Your task to perform on an android device: turn on airplane mode Image 0: 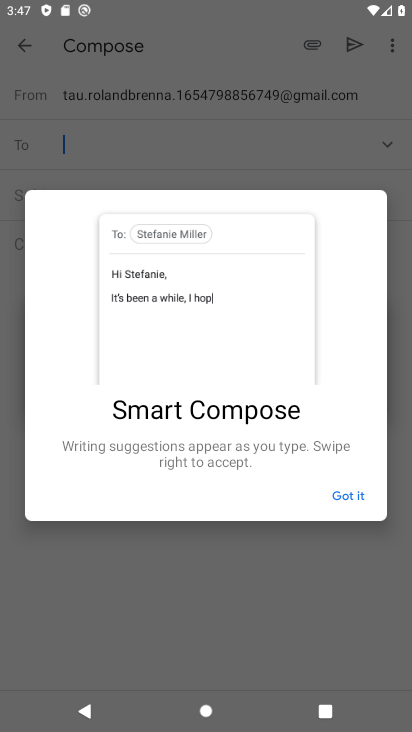
Step 0: press home button
Your task to perform on an android device: turn on airplane mode Image 1: 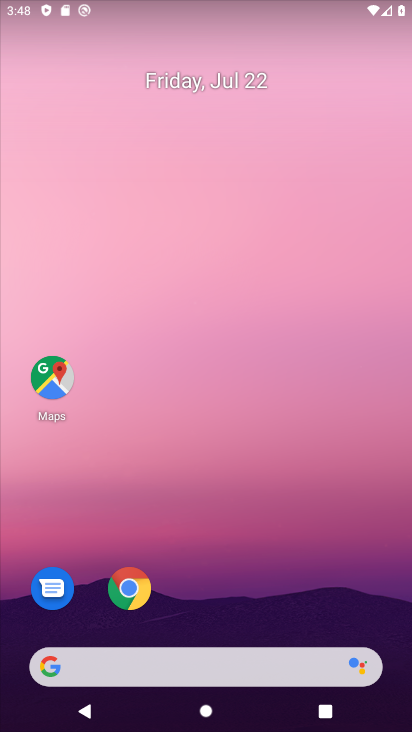
Step 1: drag from (245, 458) to (234, 212)
Your task to perform on an android device: turn on airplane mode Image 2: 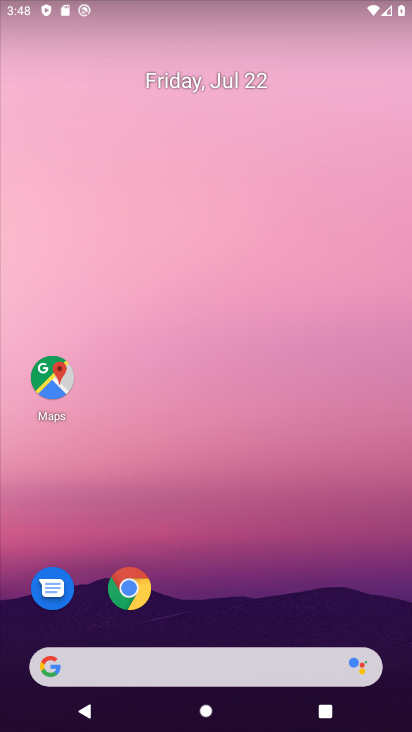
Step 2: drag from (291, 593) to (240, 93)
Your task to perform on an android device: turn on airplane mode Image 3: 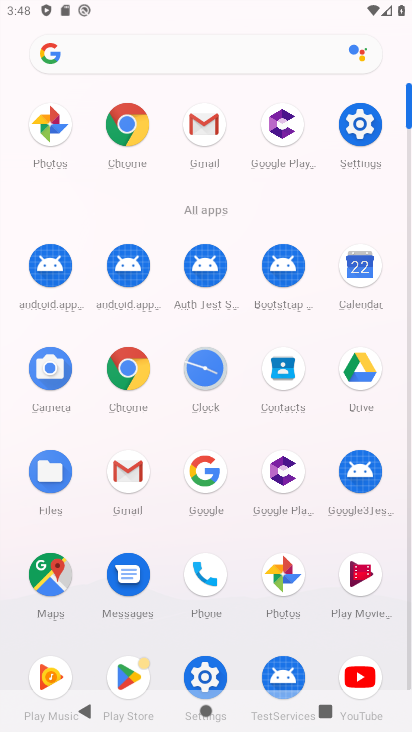
Step 3: click (358, 144)
Your task to perform on an android device: turn on airplane mode Image 4: 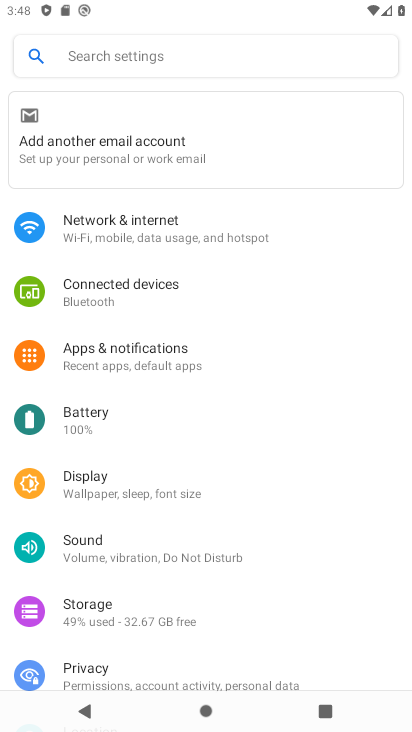
Step 4: click (195, 242)
Your task to perform on an android device: turn on airplane mode Image 5: 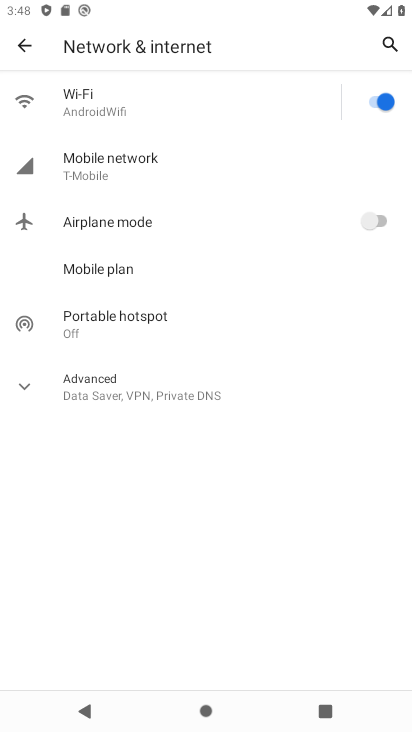
Step 5: click (359, 235)
Your task to perform on an android device: turn on airplane mode Image 6: 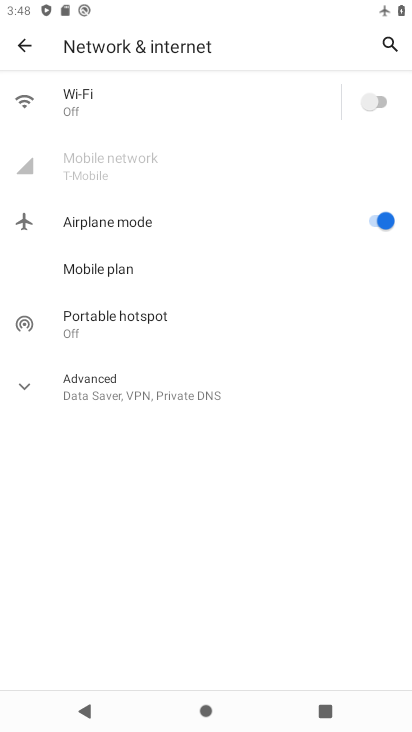
Step 6: task complete